Your task to perform on an android device: Open Youtube and go to "Your channel" Image 0: 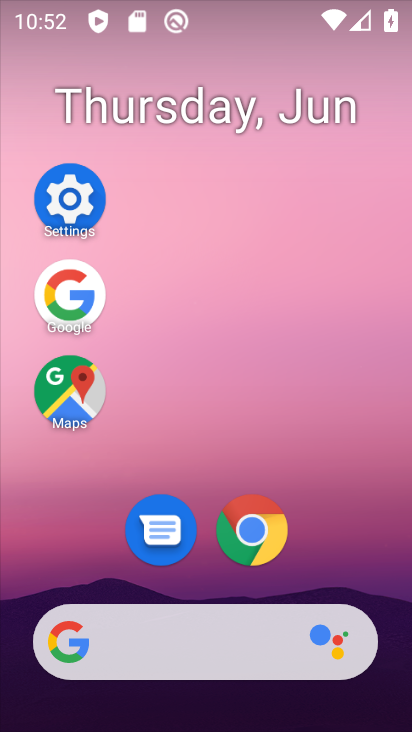
Step 0: drag from (339, 459) to (313, 137)
Your task to perform on an android device: Open Youtube and go to "Your channel" Image 1: 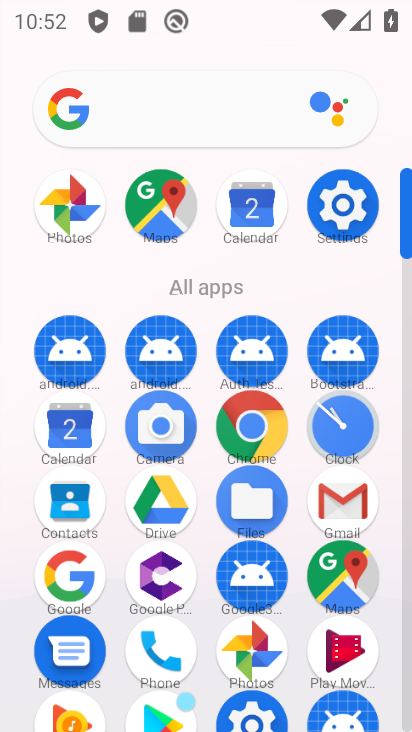
Step 1: drag from (281, 545) to (299, 129)
Your task to perform on an android device: Open Youtube and go to "Your channel" Image 2: 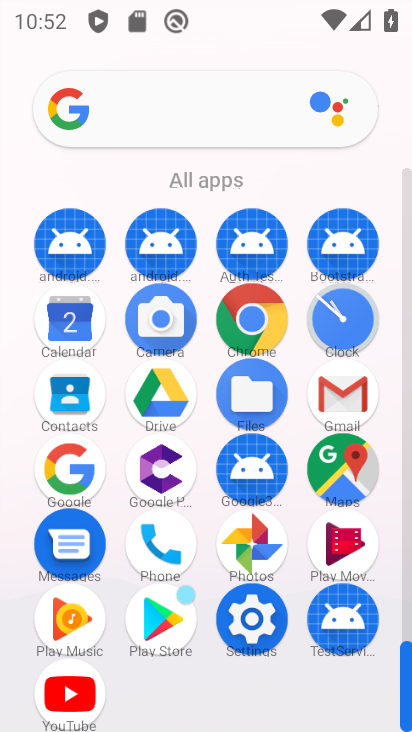
Step 2: click (66, 689)
Your task to perform on an android device: Open Youtube and go to "Your channel" Image 3: 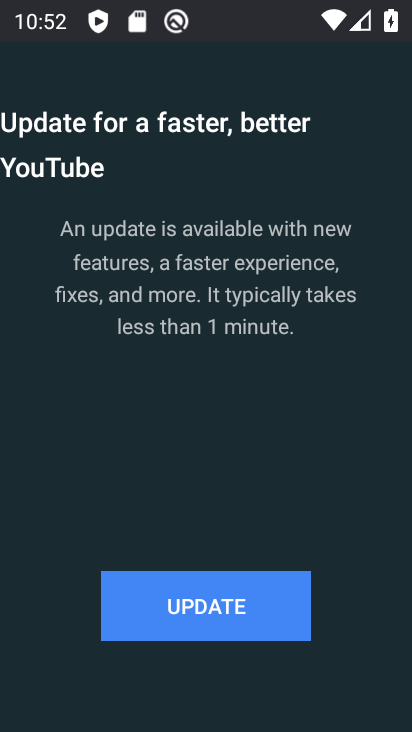
Step 3: click (161, 606)
Your task to perform on an android device: Open Youtube and go to "Your channel" Image 4: 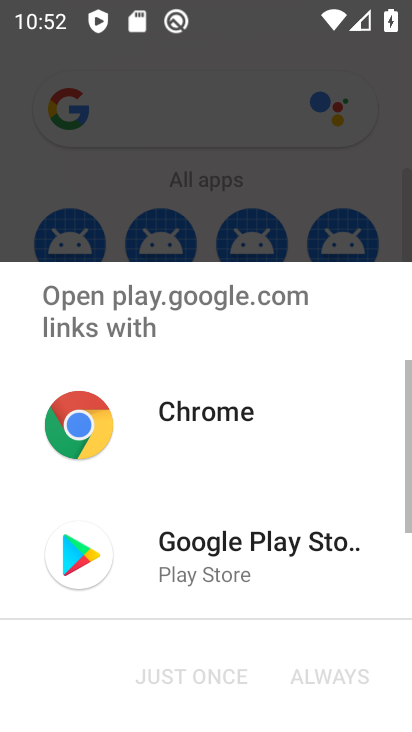
Step 4: click (201, 594)
Your task to perform on an android device: Open Youtube and go to "Your channel" Image 5: 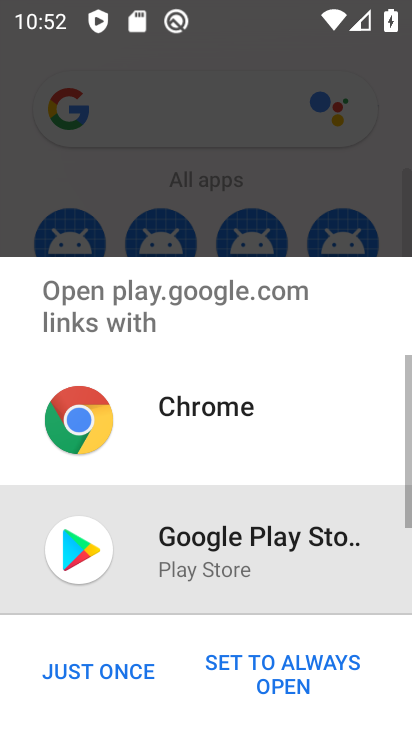
Step 5: click (282, 514)
Your task to perform on an android device: Open Youtube and go to "Your channel" Image 6: 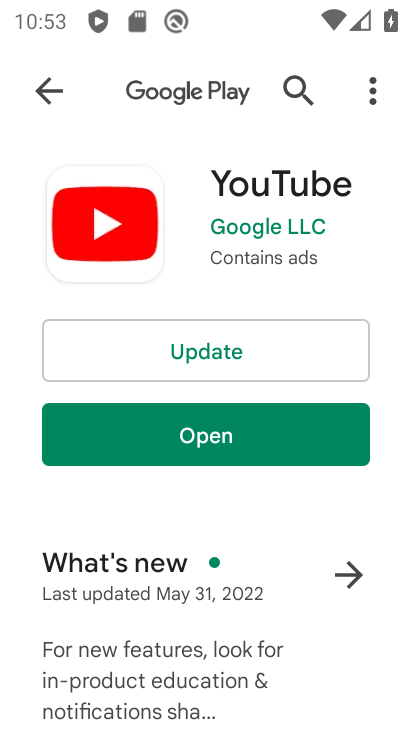
Step 6: click (268, 367)
Your task to perform on an android device: Open Youtube and go to "Your channel" Image 7: 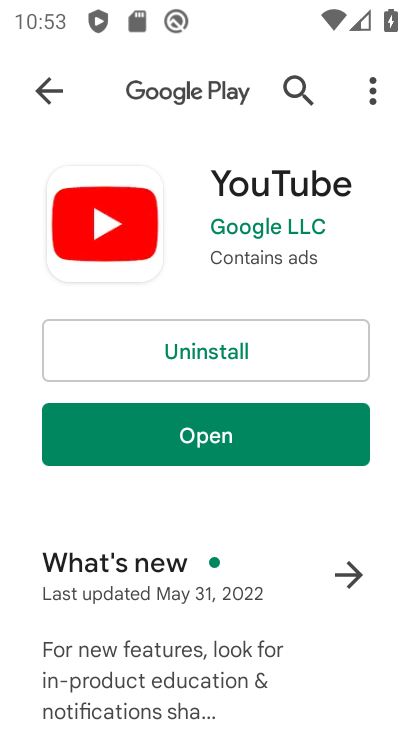
Step 7: click (295, 456)
Your task to perform on an android device: Open Youtube and go to "Your channel" Image 8: 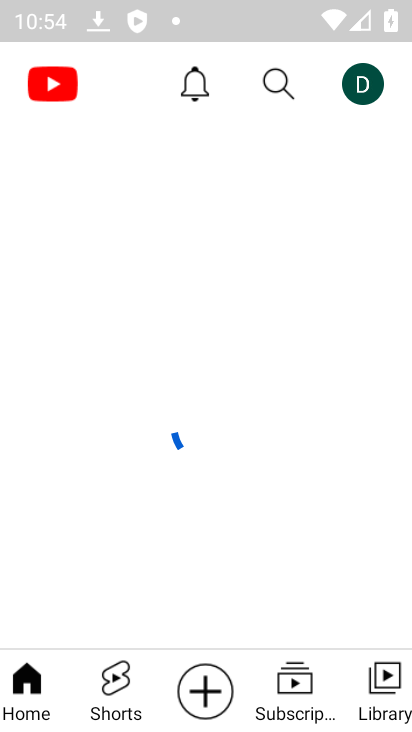
Step 8: click (369, 87)
Your task to perform on an android device: Open Youtube and go to "Your channel" Image 9: 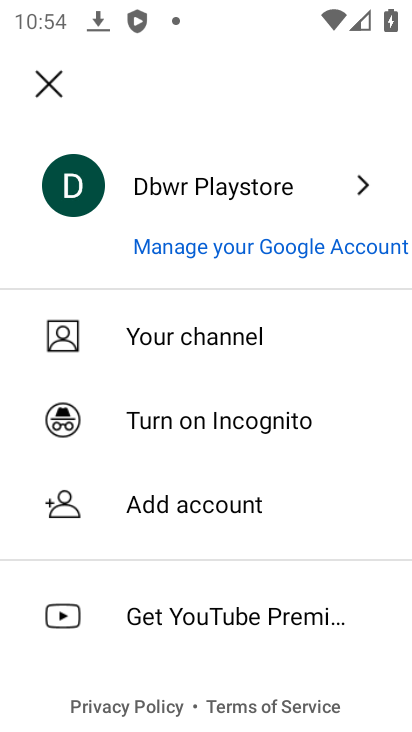
Step 9: click (189, 332)
Your task to perform on an android device: Open Youtube and go to "Your channel" Image 10: 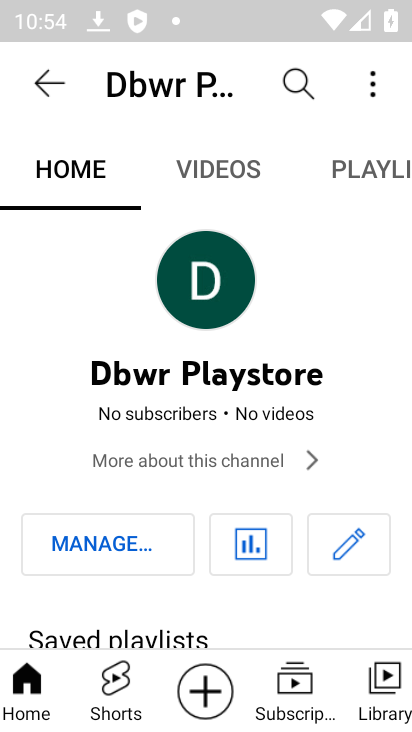
Step 10: task complete